Your task to perform on an android device: Open the calendar app, open the side menu, and click the "Day" option Image 0: 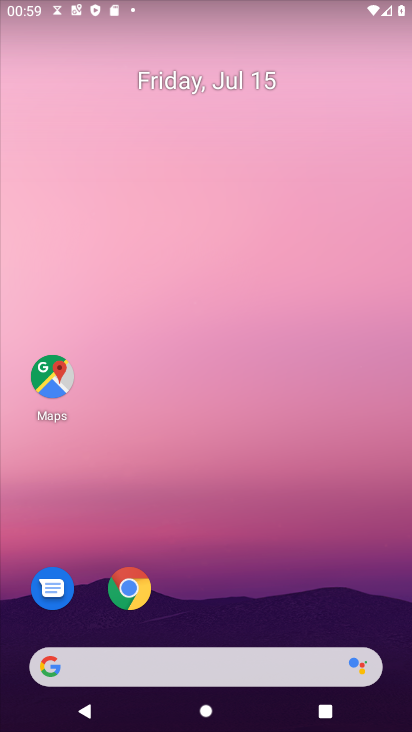
Step 0: drag from (214, 594) to (297, 140)
Your task to perform on an android device: Open the calendar app, open the side menu, and click the "Day" option Image 1: 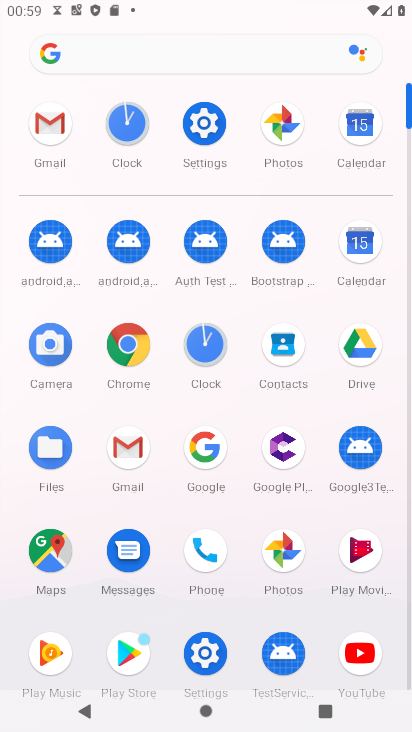
Step 1: click (367, 248)
Your task to perform on an android device: Open the calendar app, open the side menu, and click the "Day" option Image 2: 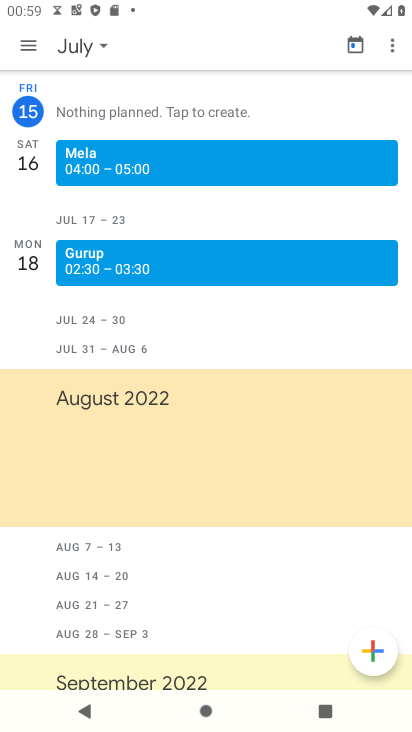
Step 2: click (33, 50)
Your task to perform on an android device: Open the calendar app, open the side menu, and click the "Day" option Image 3: 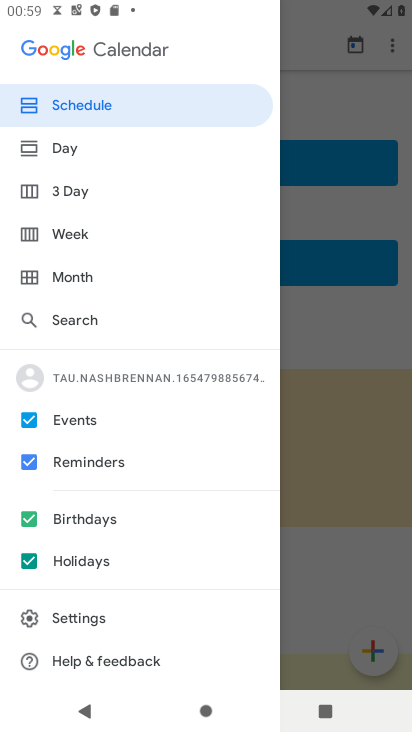
Step 3: click (105, 160)
Your task to perform on an android device: Open the calendar app, open the side menu, and click the "Day" option Image 4: 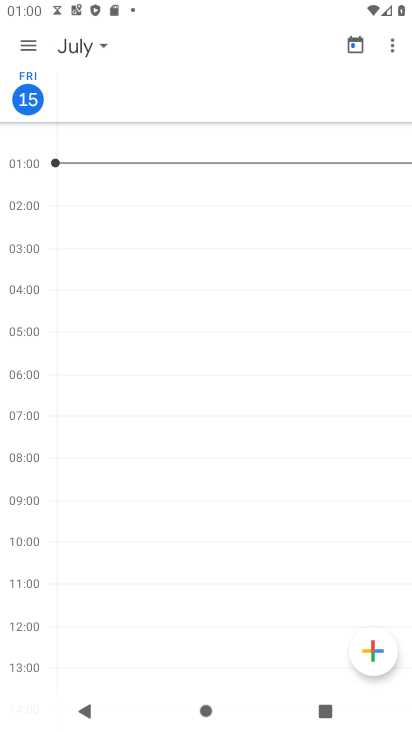
Step 4: click (34, 38)
Your task to perform on an android device: Open the calendar app, open the side menu, and click the "Day" option Image 5: 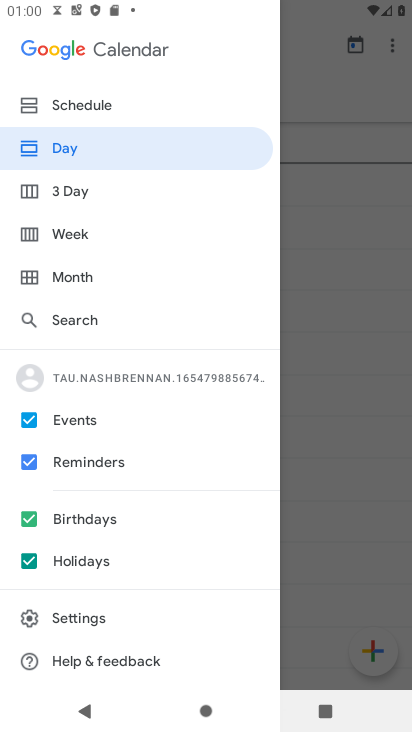
Step 5: click (105, 143)
Your task to perform on an android device: Open the calendar app, open the side menu, and click the "Day" option Image 6: 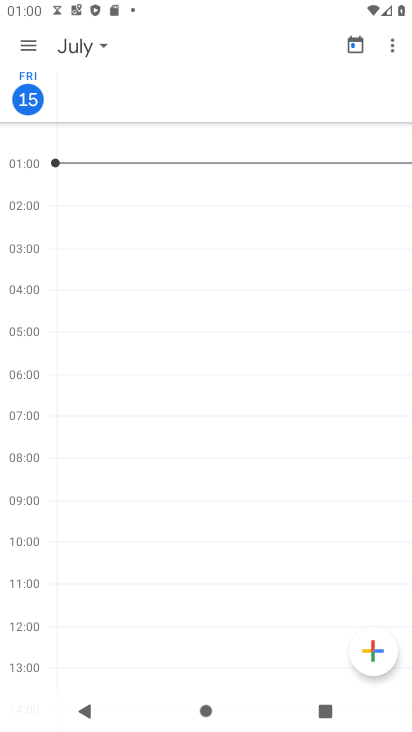
Step 6: task complete